Your task to perform on an android device: turn on wifi Image 0: 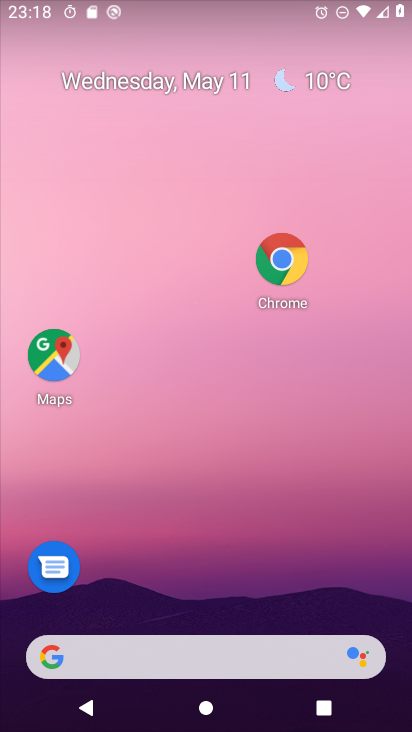
Step 0: drag from (225, 582) to (337, 151)
Your task to perform on an android device: turn on wifi Image 1: 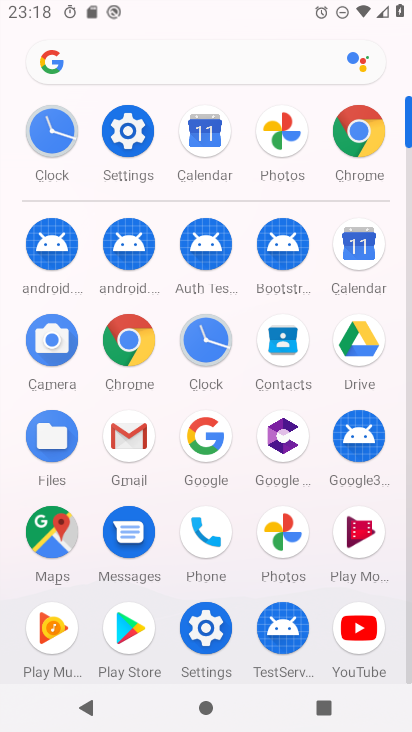
Step 1: click (131, 140)
Your task to perform on an android device: turn on wifi Image 2: 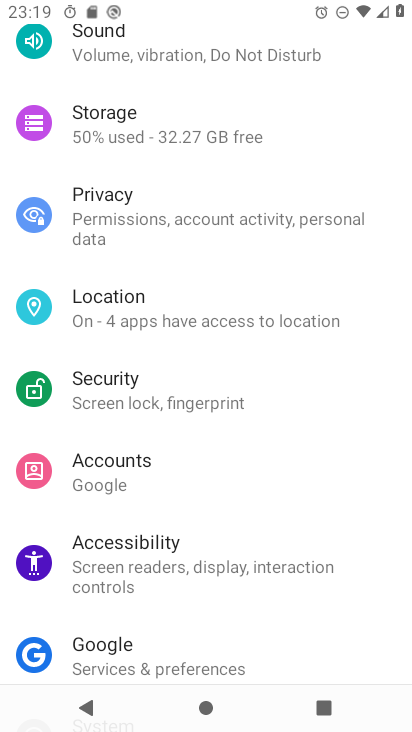
Step 2: drag from (253, 89) to (227, 572)
Your task to perform on an android device: turn on wifi Image 3: 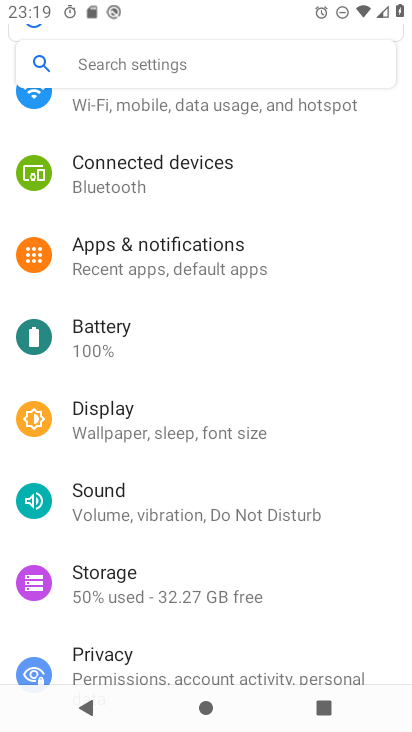
Step 3: drag from (250, 177) to (253, 555)
Your task to perform on an android device: turn on wifi Image 4: 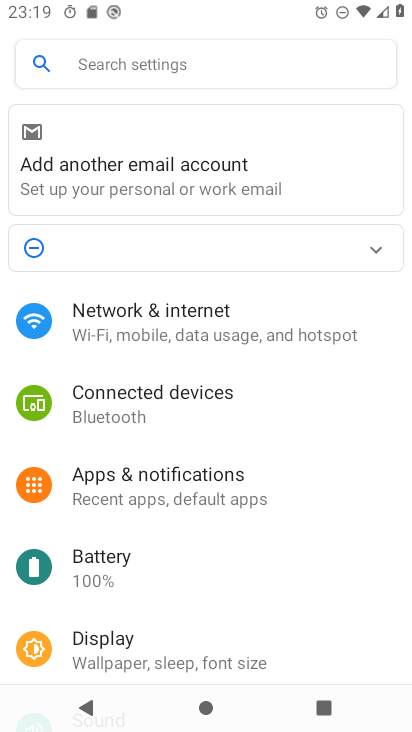
Step 4: click (192, 304)
Your task to perform on an android device: turn on wifi Image 5: 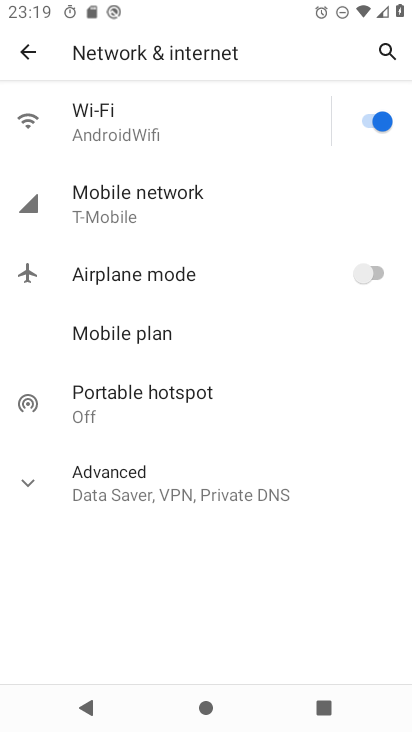
Step 5: click (127, 129)
Your task to perform on an android device: turn on wifi Image 6: 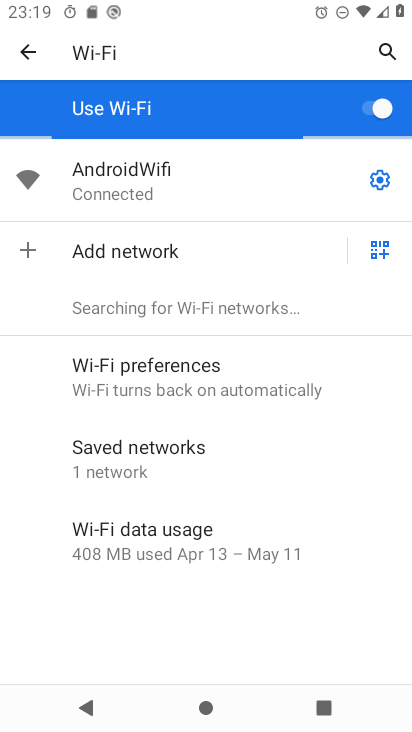
Step 6: task complete